Your task to perform on an android device: all mails in gmail Image 0: 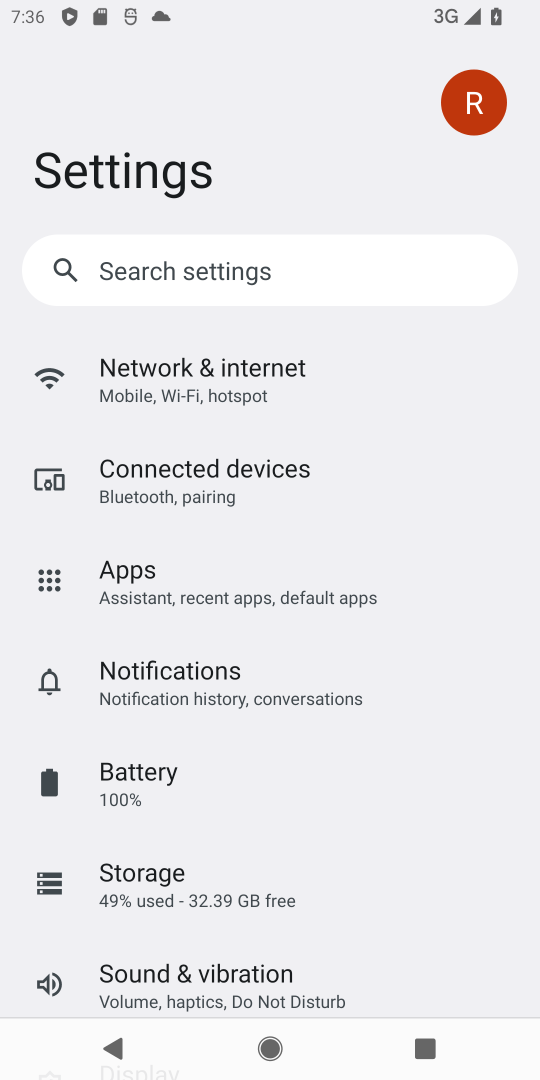
Step 0: press home button
Your task to perform on an android device: all mails in gmail Image 1: 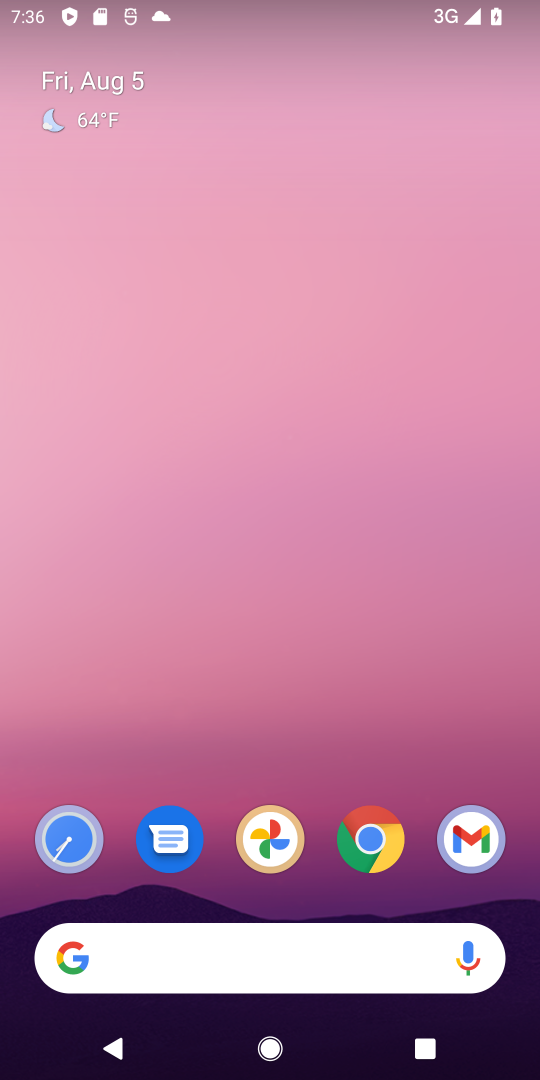
Step 1: drag from (304, 805) to (197, 128)
Your task to perform on an android device: all mails in gmail Image 2: 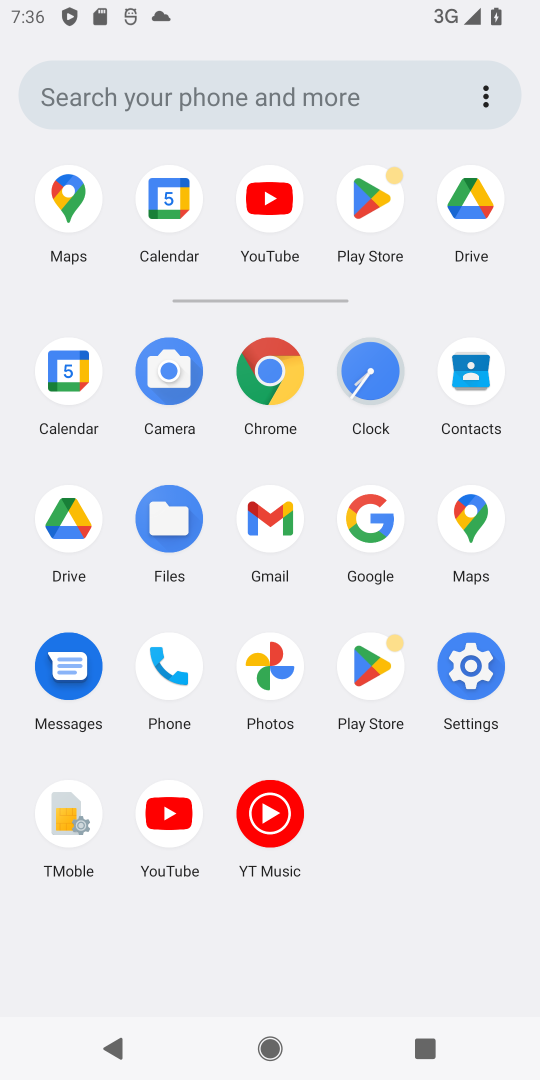
Step 2: click (268, 523)
Your task to perform on an android device: all mails in gmail Image 3: 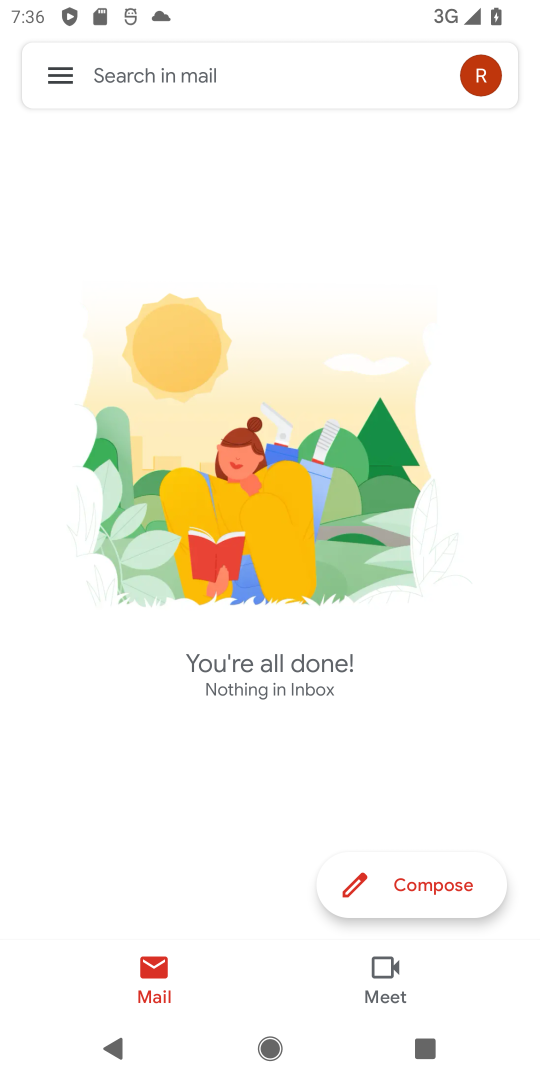
Step 3: click (63, 72)
Your task to perform on an android device: all mails in gmail Image 4: 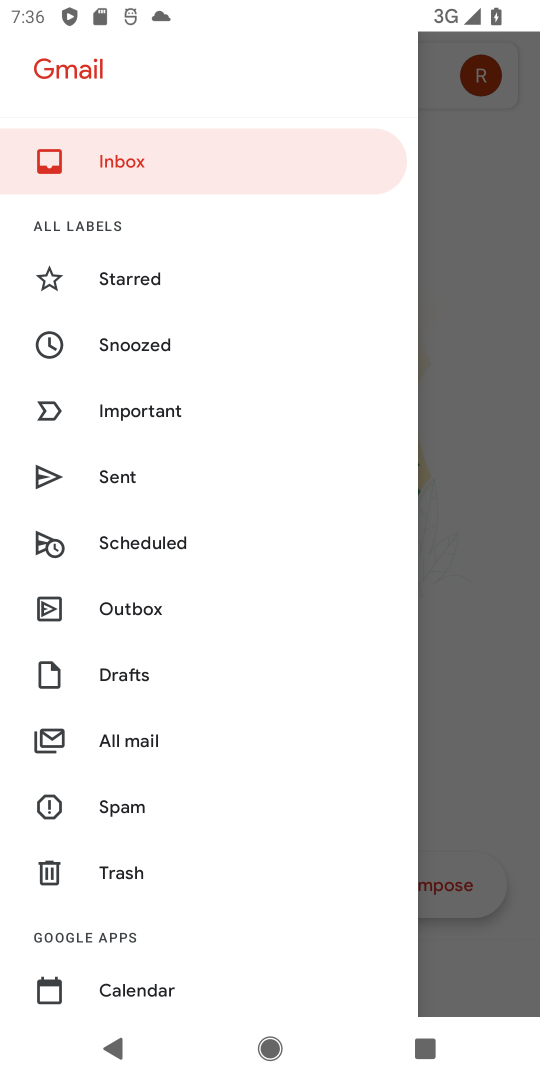
Step 4: click (132, 736)
Your task to perform on an android device: all mails in gmail Image 5: 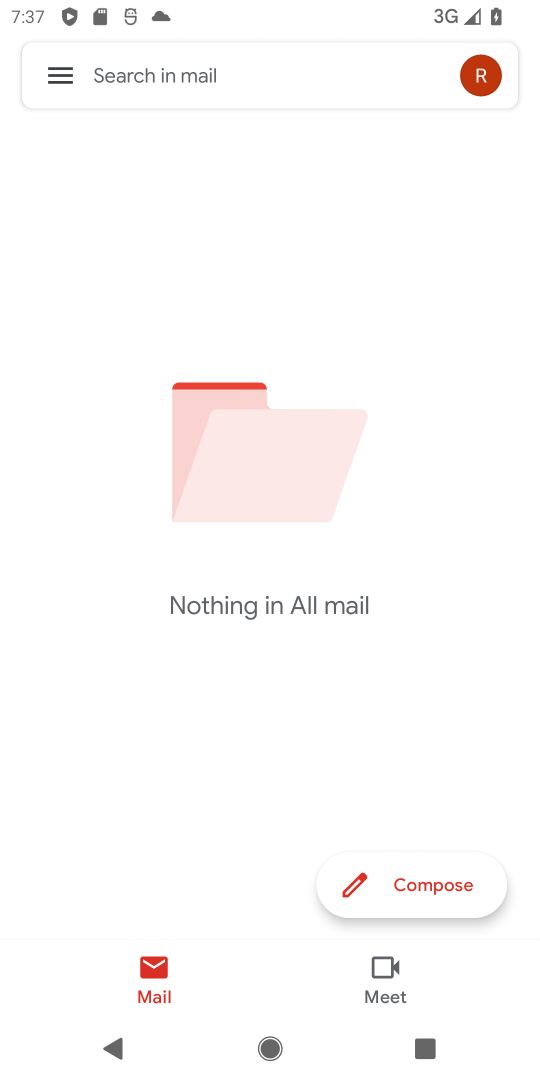
Step 5: task complete